Your task to perform on an android device: Check the weather Image 0: 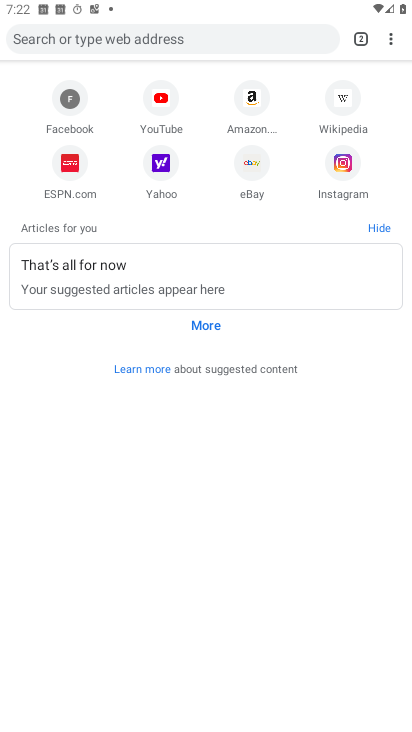
Step 0: press home button
Your task to perform on an android device: Check the weather Image 1: 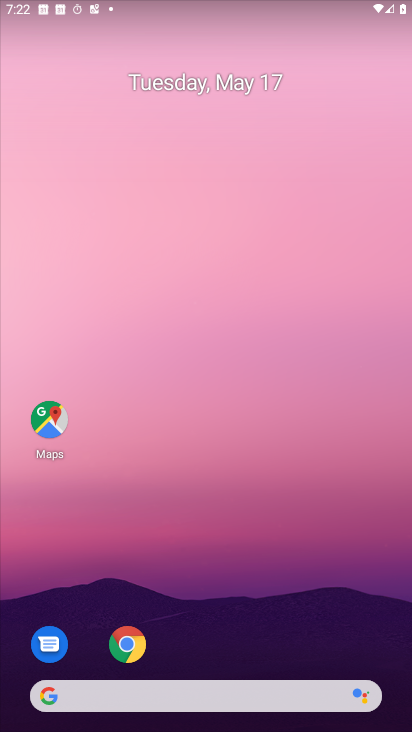
Step 1: drag from (361, 626) to (265, 36)
Your task to perform on an android device: Check the weather Image 2: 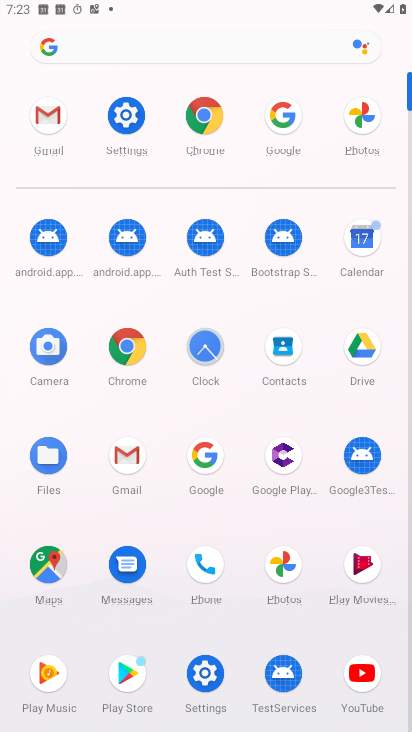
Step 2: click (281, 121)
Your task to perform on an android device: Check the weather Image 3: 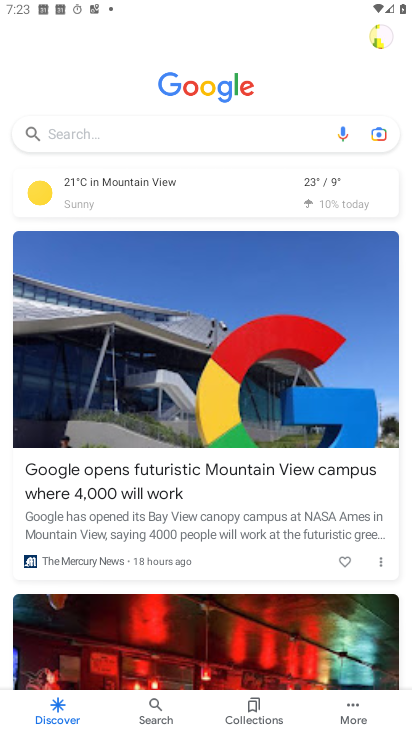
Step 3: click (156, 132)
Your task to perform on an android device: Check the weather Image 4: 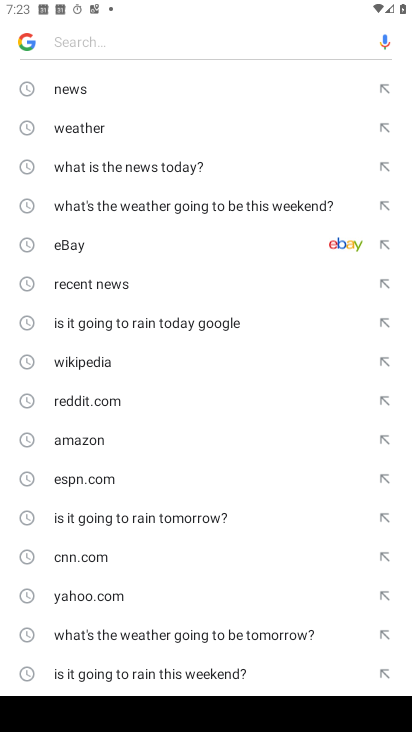
Step 4: click (135, 125)
Your task to perform on an android device: Check the weather Image 5: 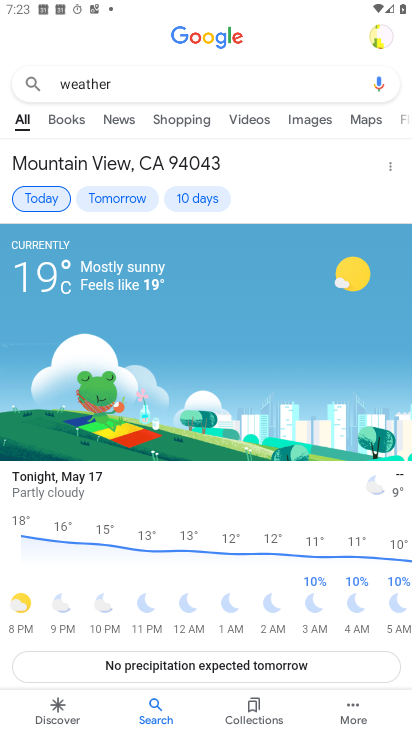
Step 5: task complete